Your task to perform on an android device: show emergency info Image 0: 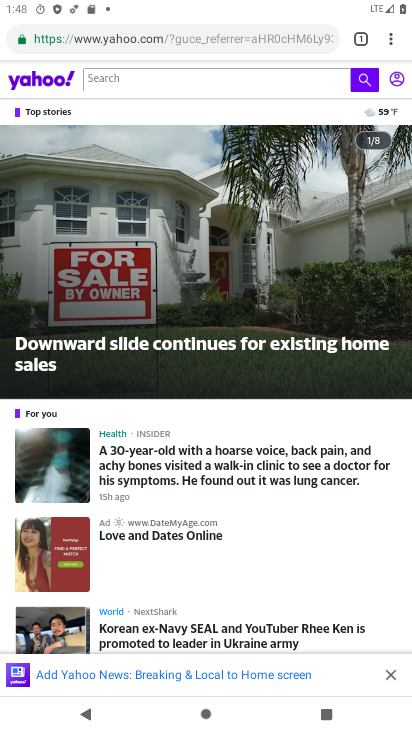
Step 0: press back button
Your task to perform on an android device: show emergency info Image 1: 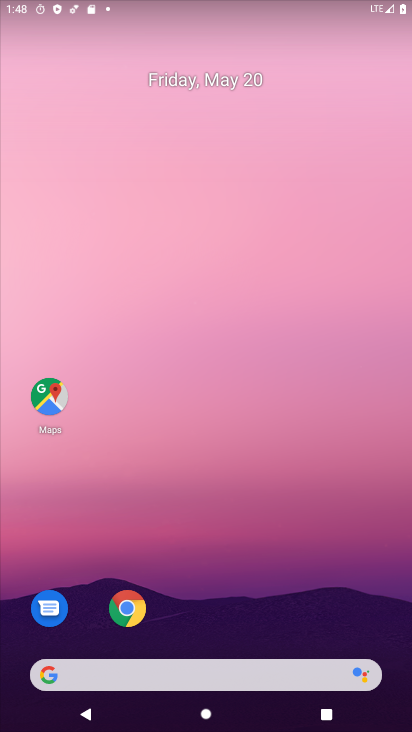
Step 1: drag from (270, 582) to (200, 169)
Your task to perform on an android device: show emergency info Image 2: 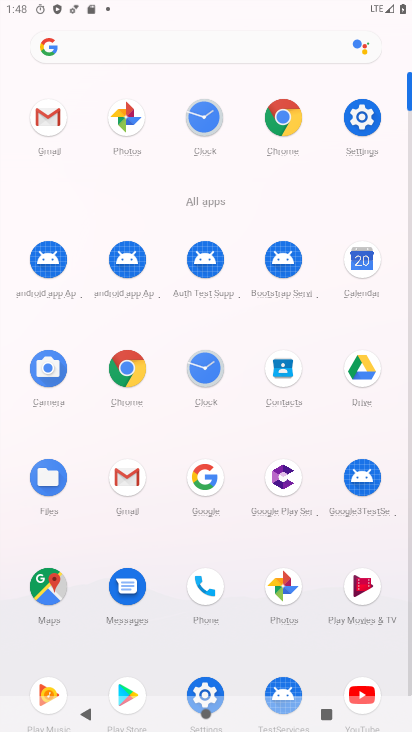
Step 2: click (361, 114)
Your task to perform on an android device: show emergency info Image 3: 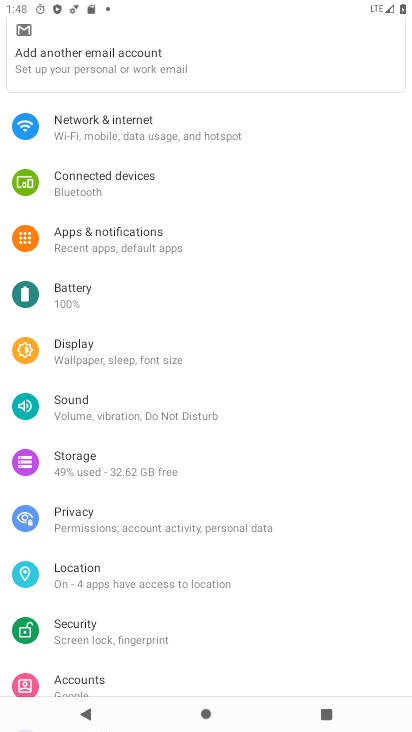
Step 3: drag from (96, 489) to (143, 403)
Your task to perform on an android device: show emergency info Image 4: 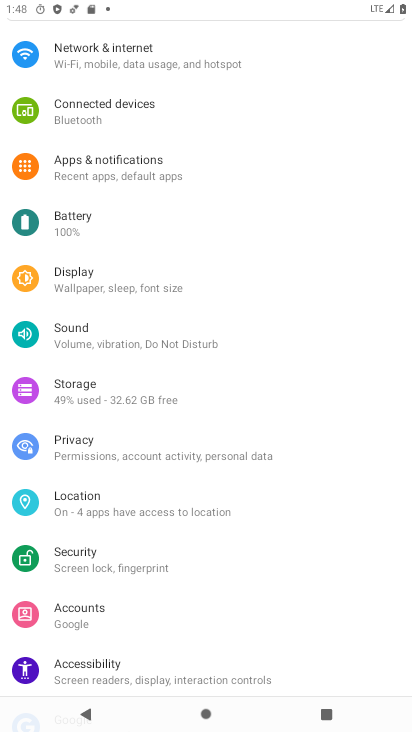
Step 4: drag from (104, 532) to (164, 443)
Your task to perform on an android device: show emergency info Image 5: 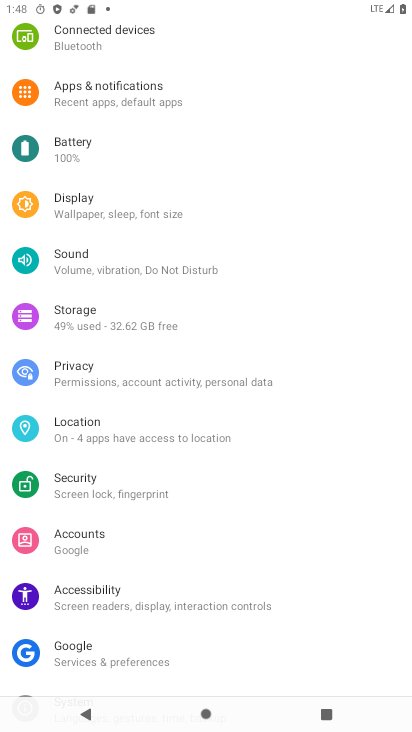
Step 5: drag from (122, 527) to (167, 434)
Your task to perform on an android device: show emergency info Image 6: 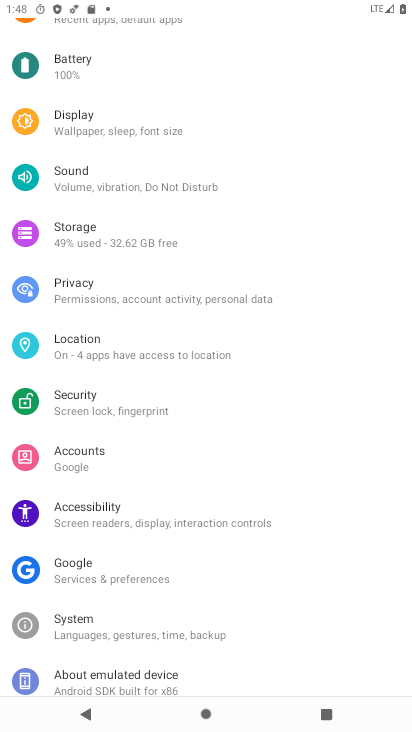
Step 6: drag from (123, 555) to (184, 460)
Your task to perform on an android device: show emergency info Image 7: 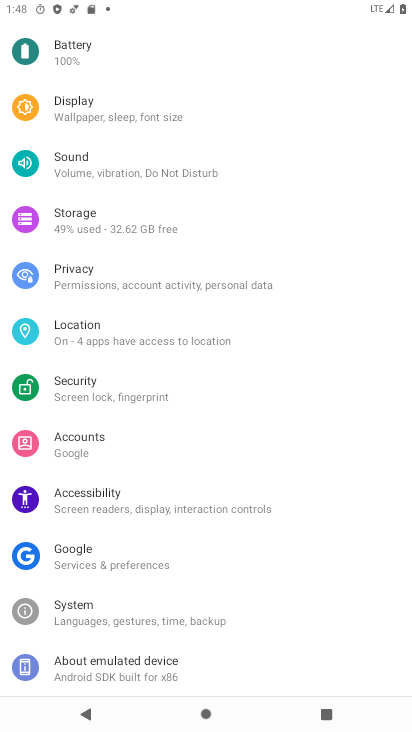
Step 7: click (99, 659)
Your task to perform on an android device: show emergency info Image 8: 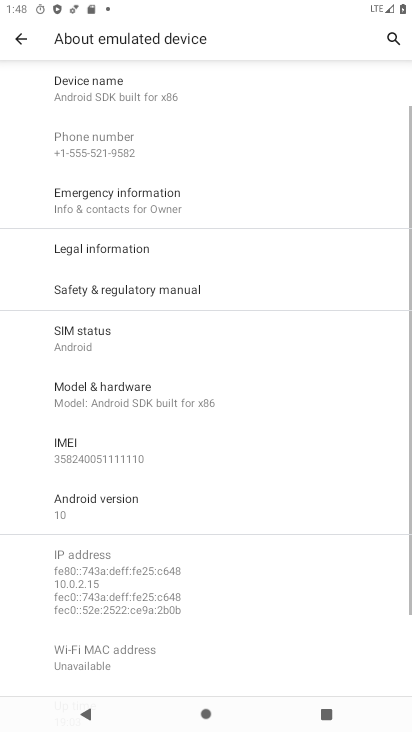
Step 8: click (111, 203)
Your task to perform on an android device: show emergency info Image 9: 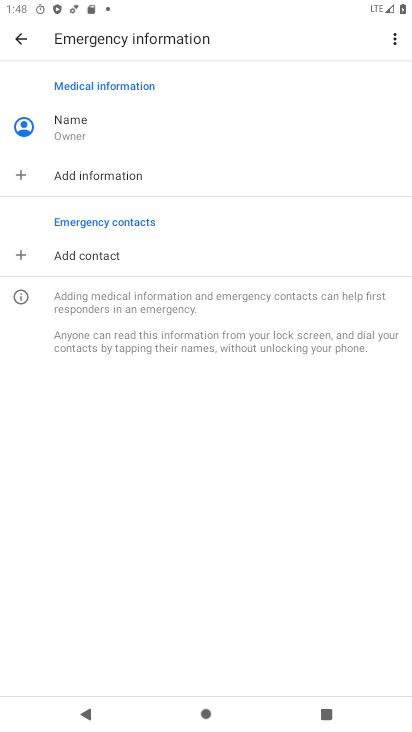
Step 9: task complete